Your task to perform on an android device: Go to Maps Image 0: 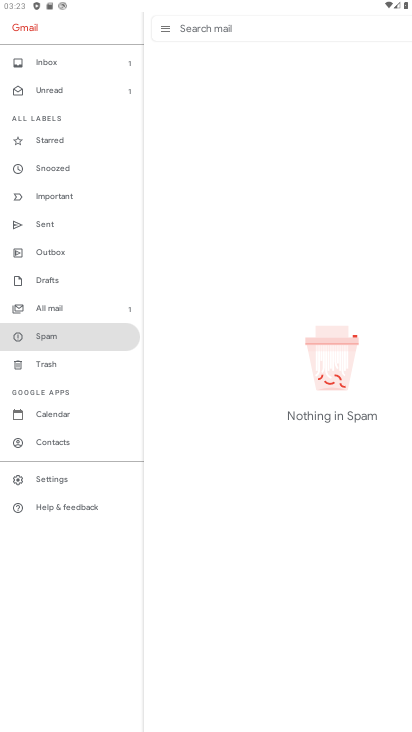
Step 0: press home button
Your task to perform on an android device: Go to Maps Image 1: 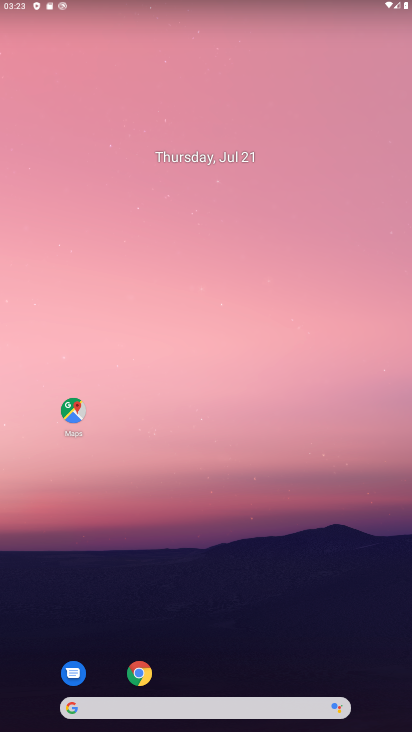
Step 1: drag from (272, 615) to (235, 131)
Your task to perform on an android device: Go to Maps Image 2: 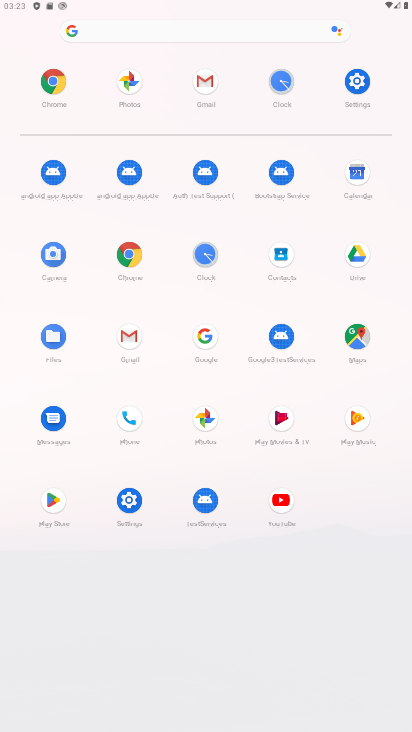
Step 2: click (362, 335)
Your task to perform on an android device: Go to Maps Image 3: 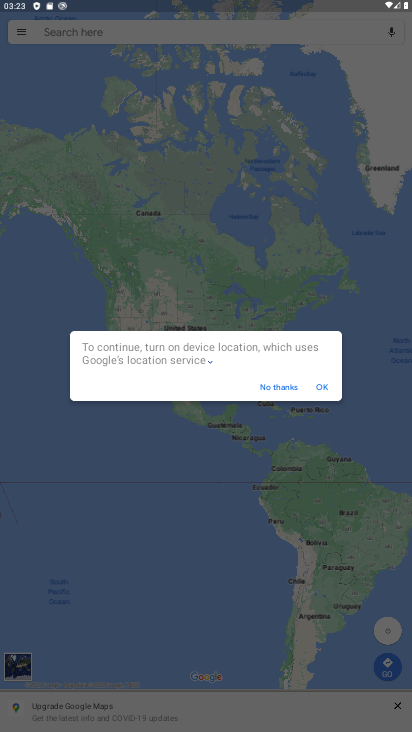
Step 3: click (327, 387)
Your task to perform on an android device: Go to Maps Image 4: 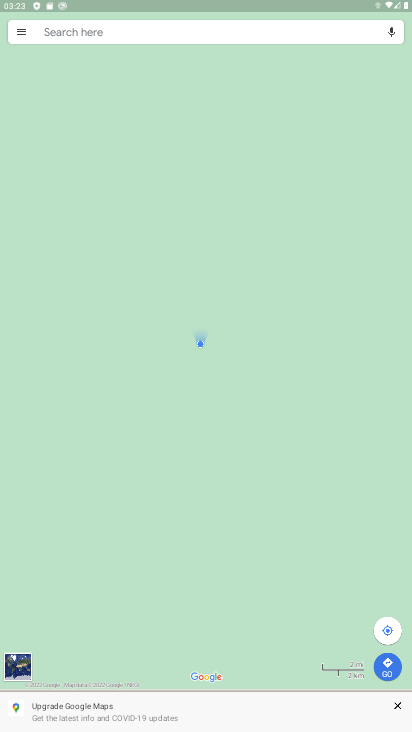
Step 4: task complete